Your task to perform on an android device: Show me the alarms in the clock app Image 0: 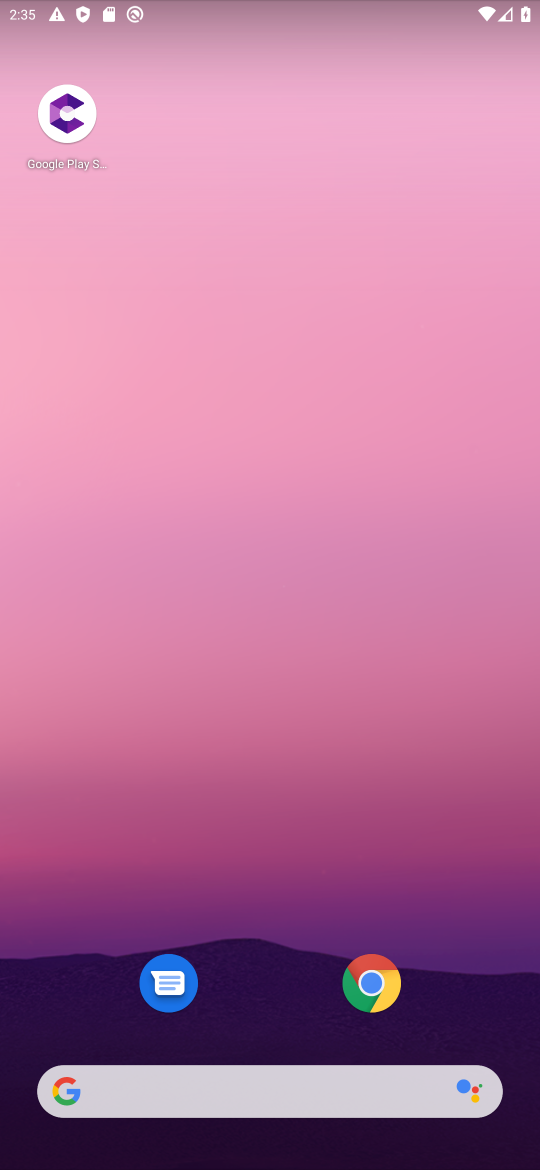
Step 0: drag from (351, 1090) to (318, 453)
Your task to perform on an android device: Show me the alarms in the clock app Image 1: 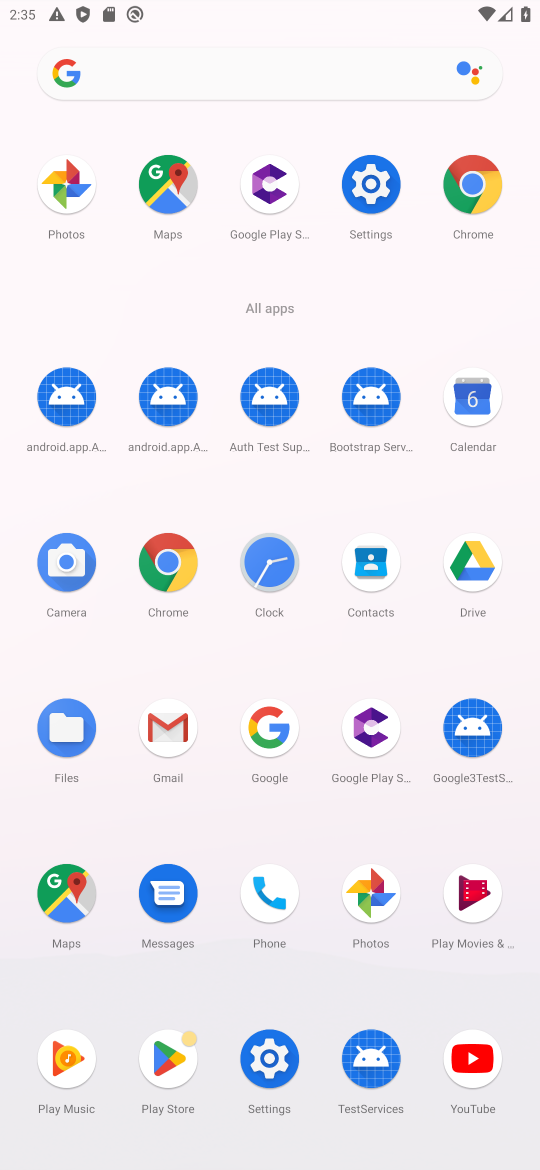
Step 1: click (275, 571)
Your task to perform on an android device: Show me the alarms in the clock app Image 2: 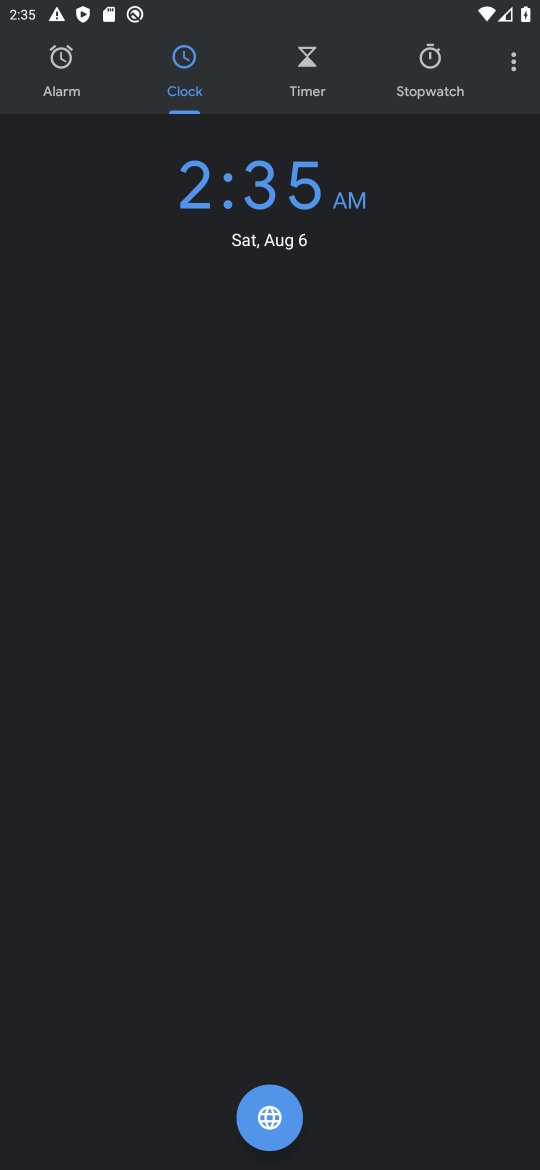
Step 2: click (67, 77)
Your task to perform on an android device: Show me the alarms in the clock app Image 3: 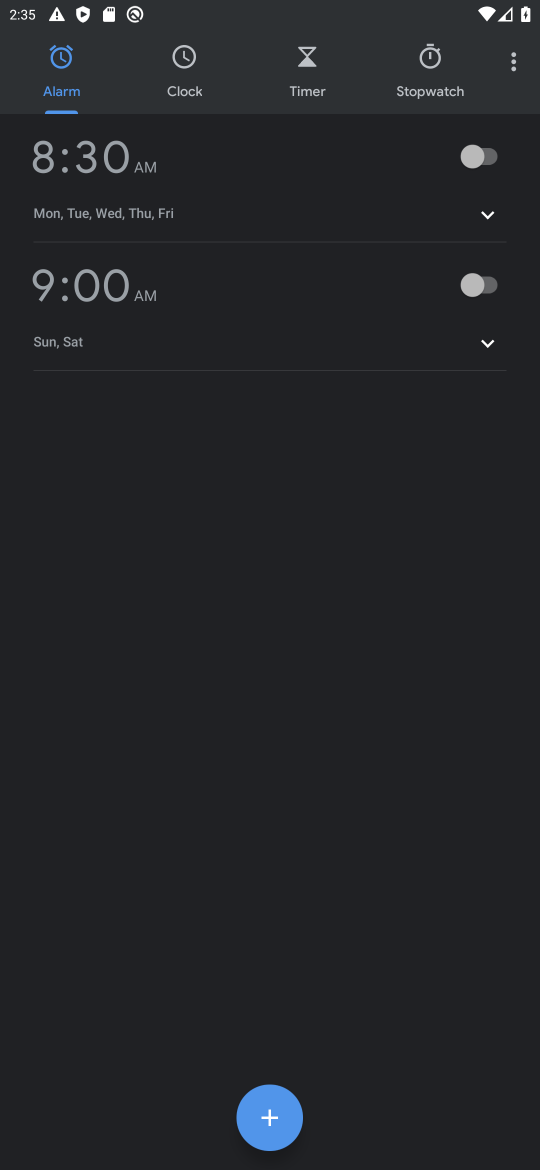
Step 3: task complete